Your task to perform on an android device: turn off sleep mode Image 0: 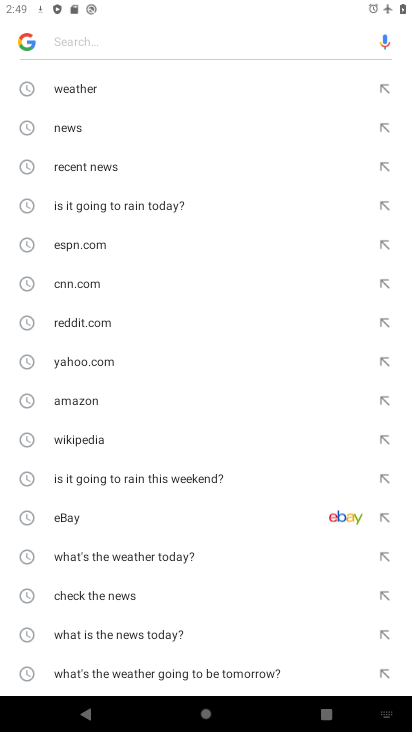
Step 0: press home button
Your task to perform on an android device: turn off sleep mode Image 1: 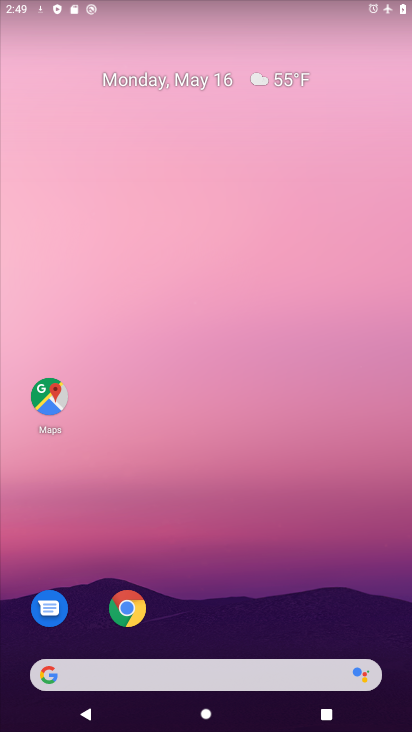
Step 1: drag from (227, 624) to (213, 40)
Your task to perform on an android device: turn off sleep mode Image 2: 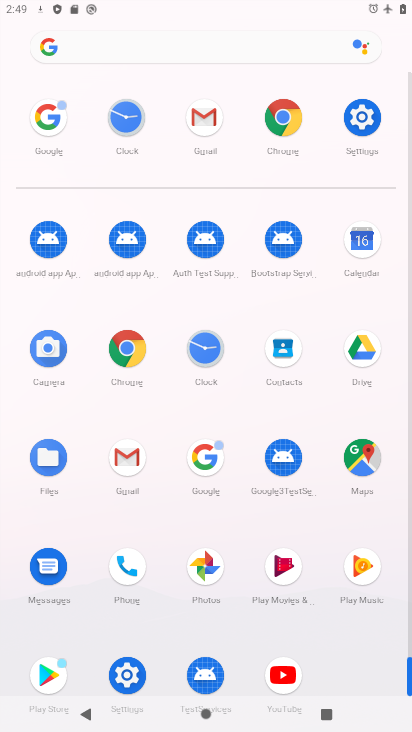
Step 2: click (385, 129)
Your task to perform on an android device: turn off sleep mode Image 3: 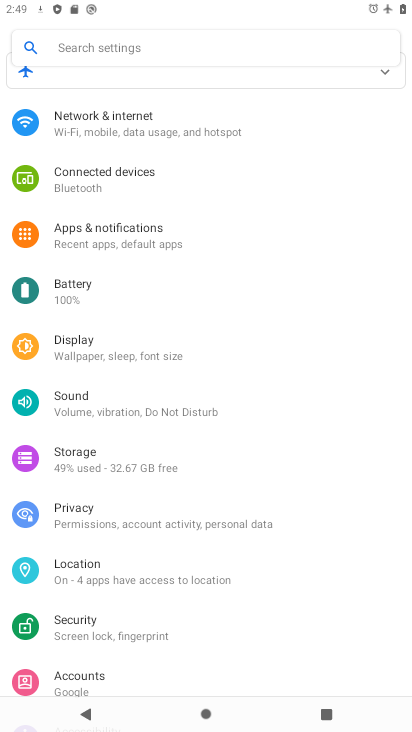
Step 3: click (105, 348)
Your task to perform on an android device: turn off sleep mode Image 4: 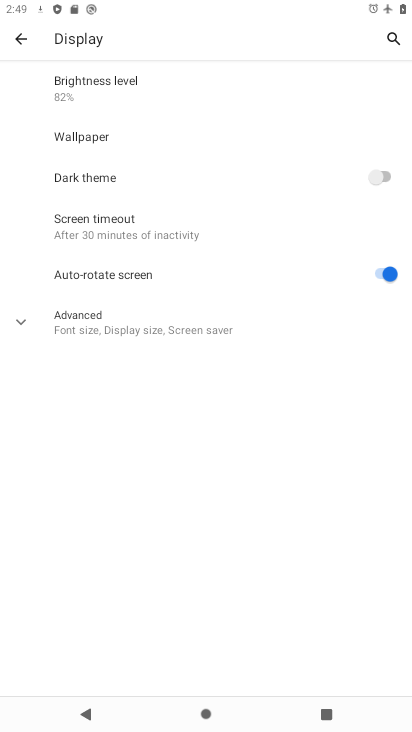
Step 4: click (115, 231)
Your task to perform on an android device: turn off sleep mode Image 5: 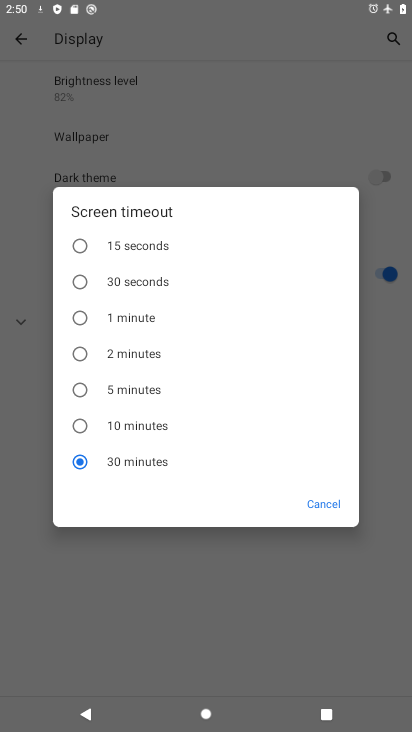
Step 5: click (129, 381)
Your task to perform on an android device: turn off sleep mode Image 6: 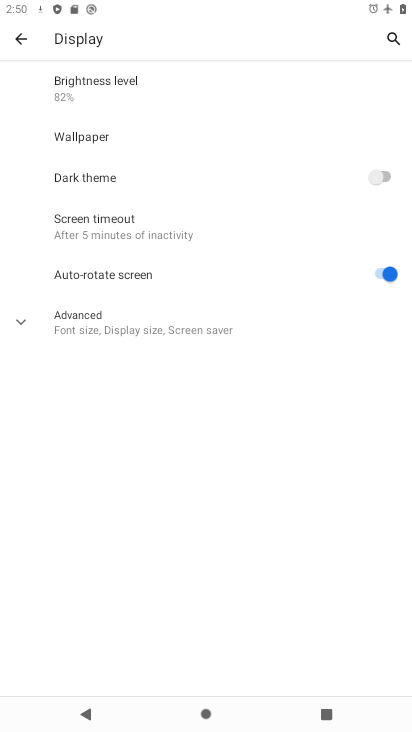
Step 6: click (48, 309)
Your task to perform on an android device: turn off sleep mode Image 7: 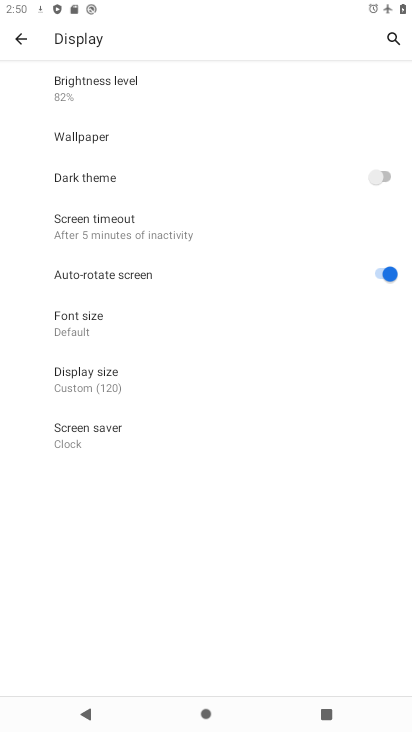
Step 7: task complete